Your task to perform on an android device: open chrome privacy settings Image 0: 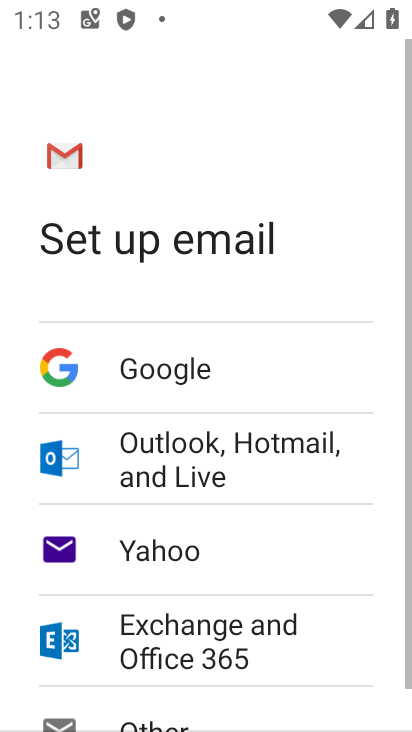
Step 0: press home button
Your task to perform on an android device: open chrome privacy settings Image 1: 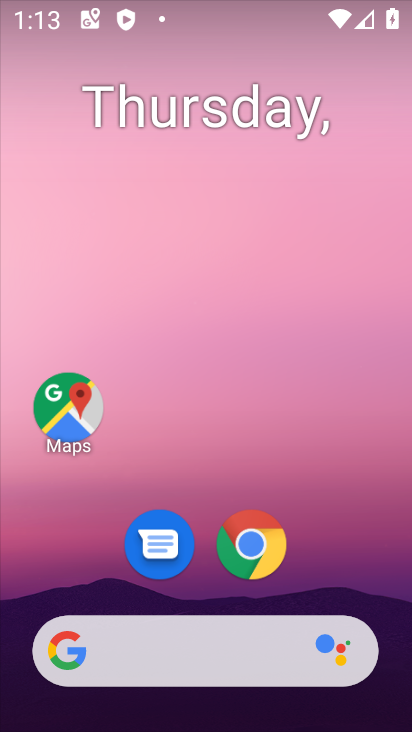
Step 1: drag from (209, 687) to (218, 29)
Your task to perform on an android device: open chrome privacy settings Image 2: 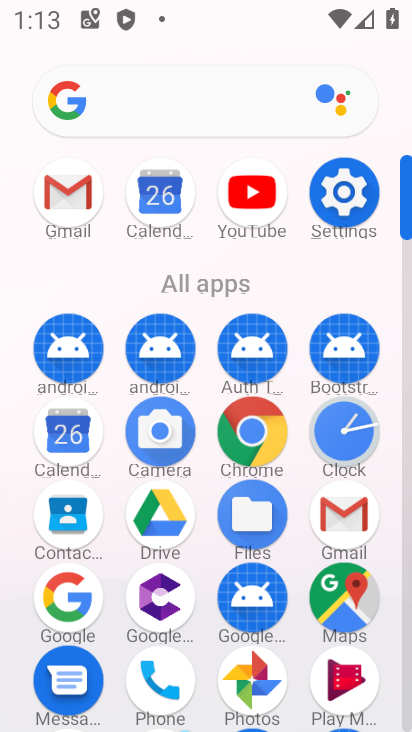
Step 2: click (337, 199)
Your task to perform on an android device: open chrome privacy settings Image 3: 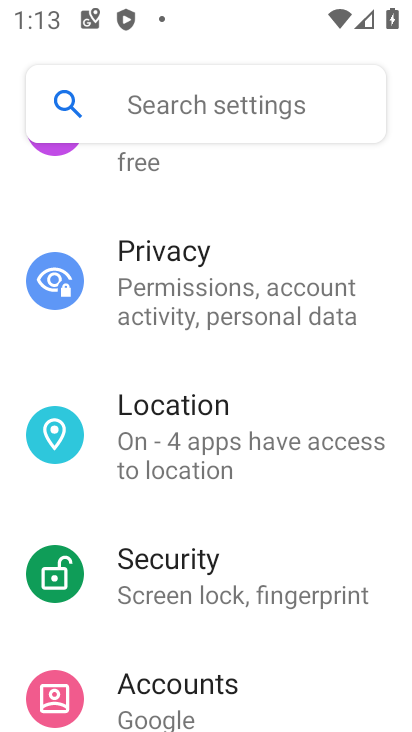
Step 3: click (200, 280)
Your task to perform on an android device: open chrome privacy settings Image 4: 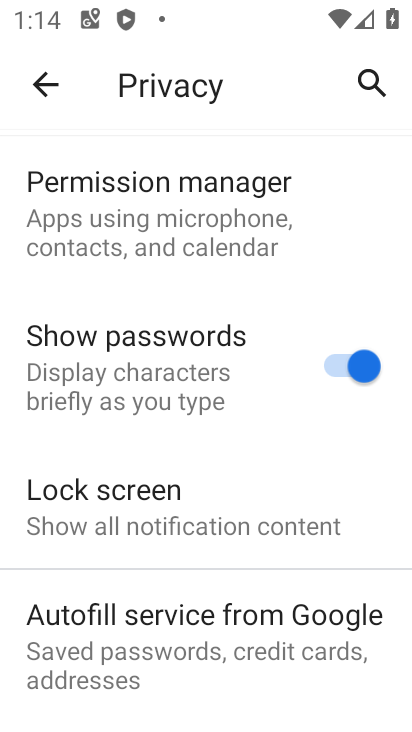
Step 4: task complete